Your task to perform on an android device: Go to Google Image 0: 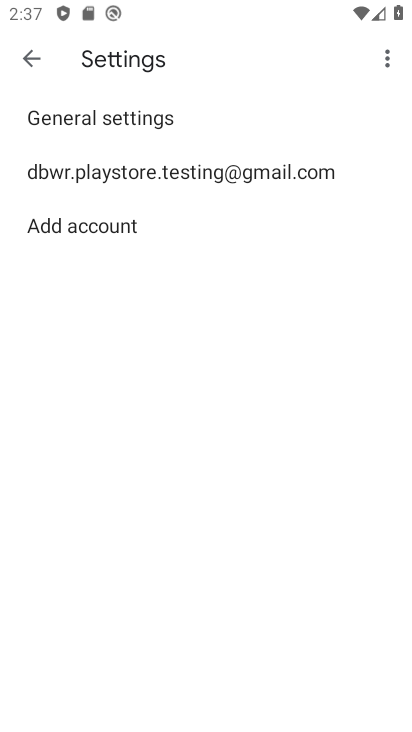
Step 0: press back button
Your task to perform on an android device: Go to Google Image 1: 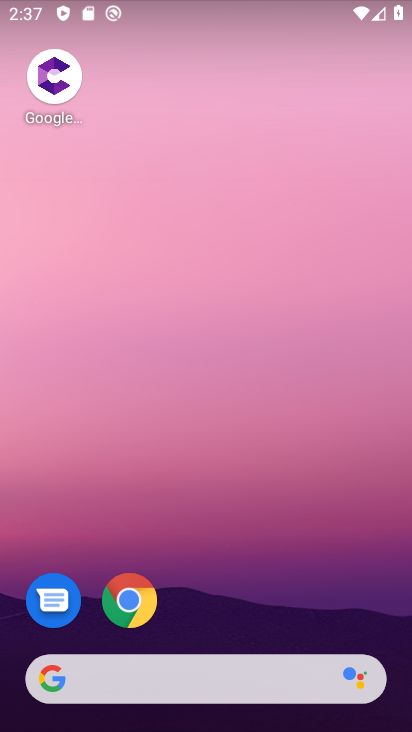
Step 1: drag from (240, 647) to (384, 125)
Your task to perform on an android device: Go to Google Image 2: 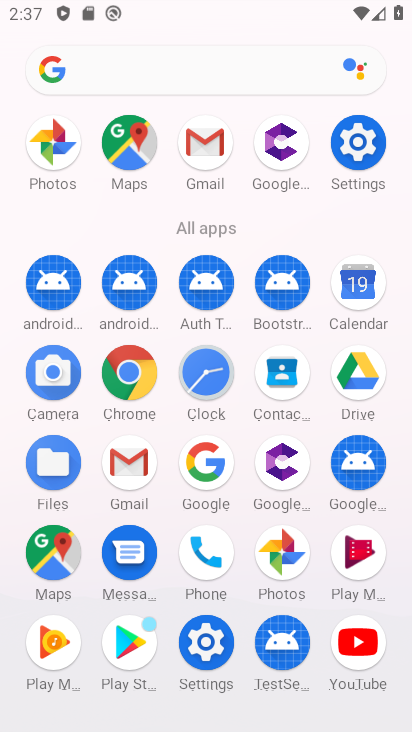
Step 2: click (206, 458)
Your task to perform on an android device: Go to Google Image 3: 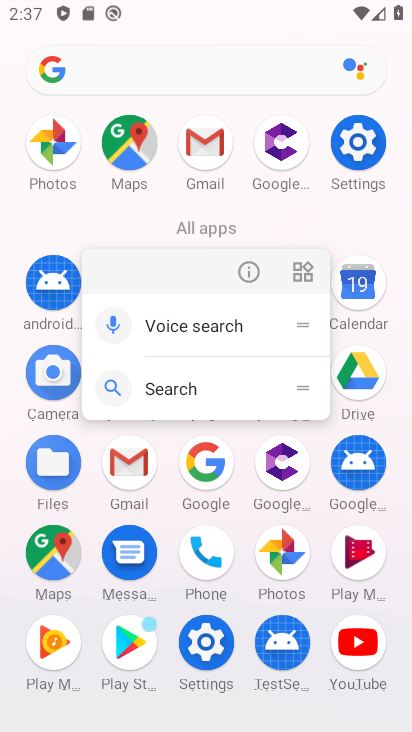
Step 3: click (205, 469)
Your task to perform on an android device: Go to Google Image 4: 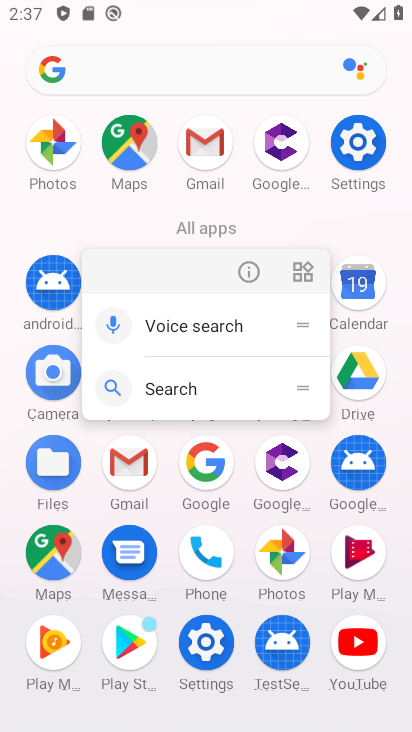
Step 4: click (205, 467)
Your task to perform on an android device: Go to Google Image 5: 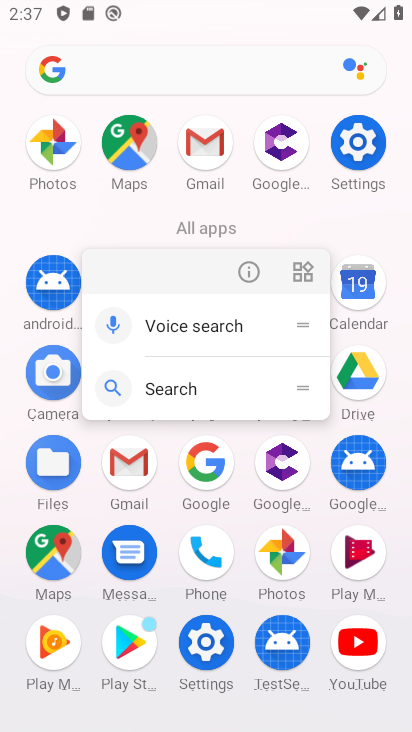
Step 5: click (201, 477)
Your task to perform on an android device: Go to Google Image 6: 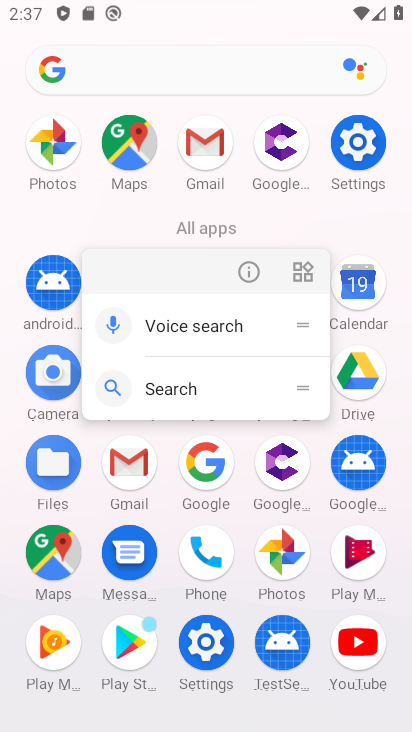
Step 6: click (206, 476)
Your task to perform on an android device: Go to Google Image 7: 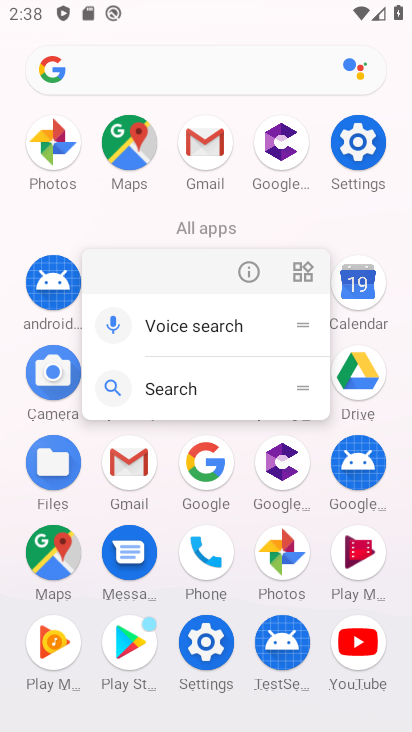
Step 7: click (203, 470)
Your task to perform on an android device: Go to Google Image 8: 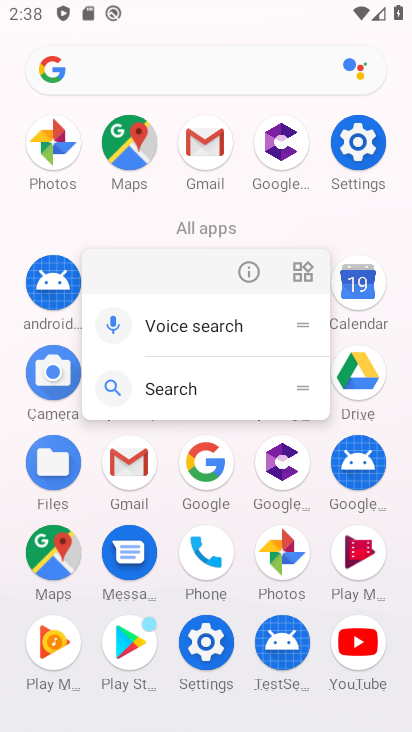
Step 8: click (208, 470)
Your task to perform on an android device: Go to Google Image 9: 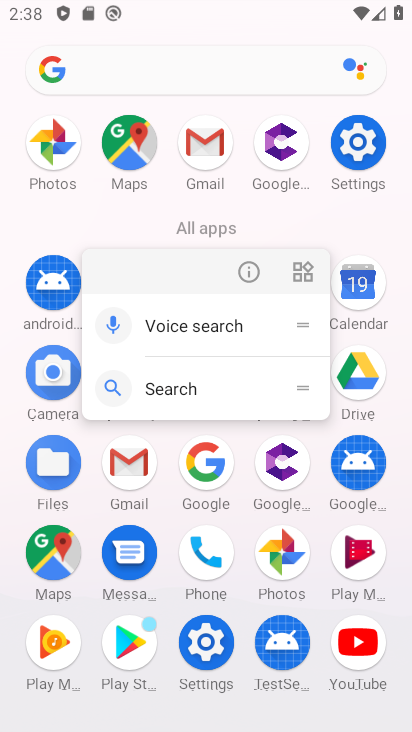
Step 9: click (206, 468)
Your task to perform on an android device: Go to Google Image 10: 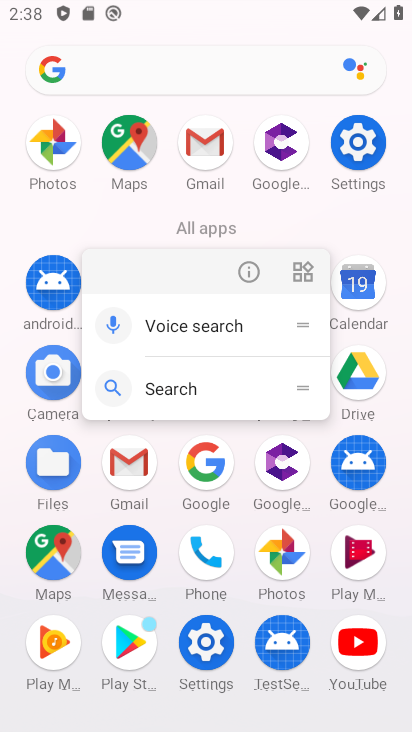
Step 10: click (192, 474)
Your task to perform on an android device: Go to Google Image 11: 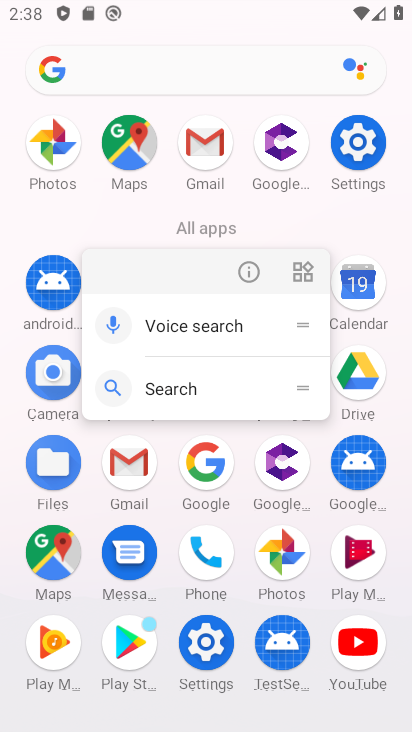
Step 11: click (210, 459)
Your task to perform on an android device: Go to Google Image 12: 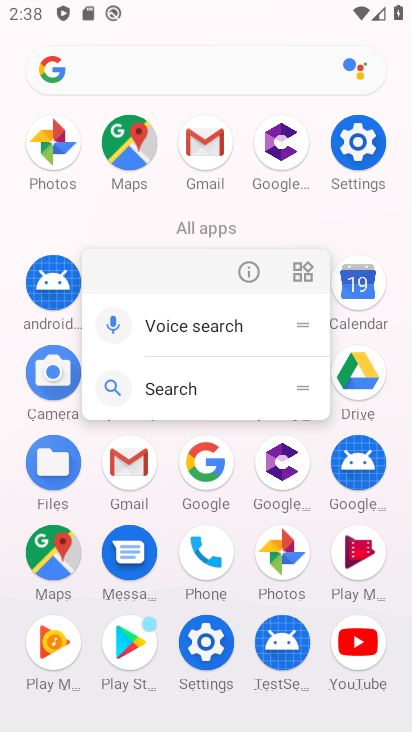
Step 12: click (208, 465)
Your task to perform on an android device: Go to Google Image 13: 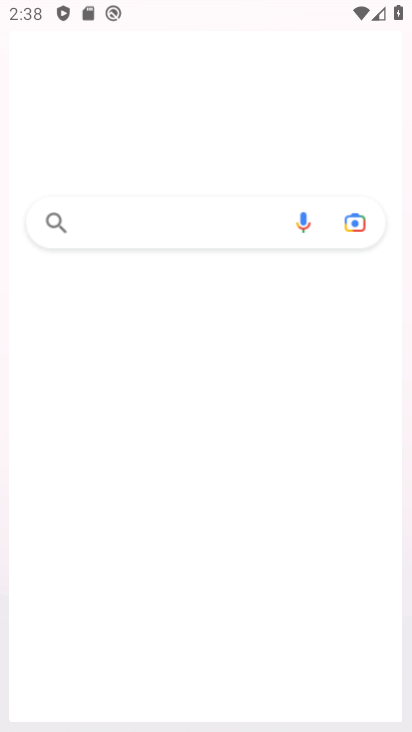
Step 13: click (206, 464)
Your task to perform on an android device: Go to Google Image 14: 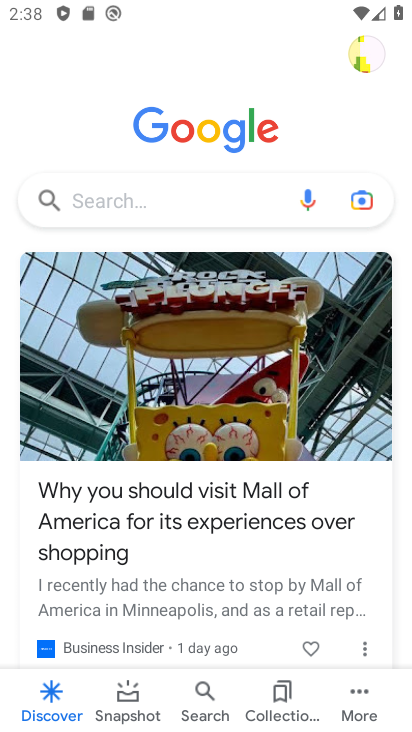
Step 14: task complete